Your task to perform on an android device: Add "bose quietcomfort 35" to the cart on costco.com, then select checkout. Image 0: 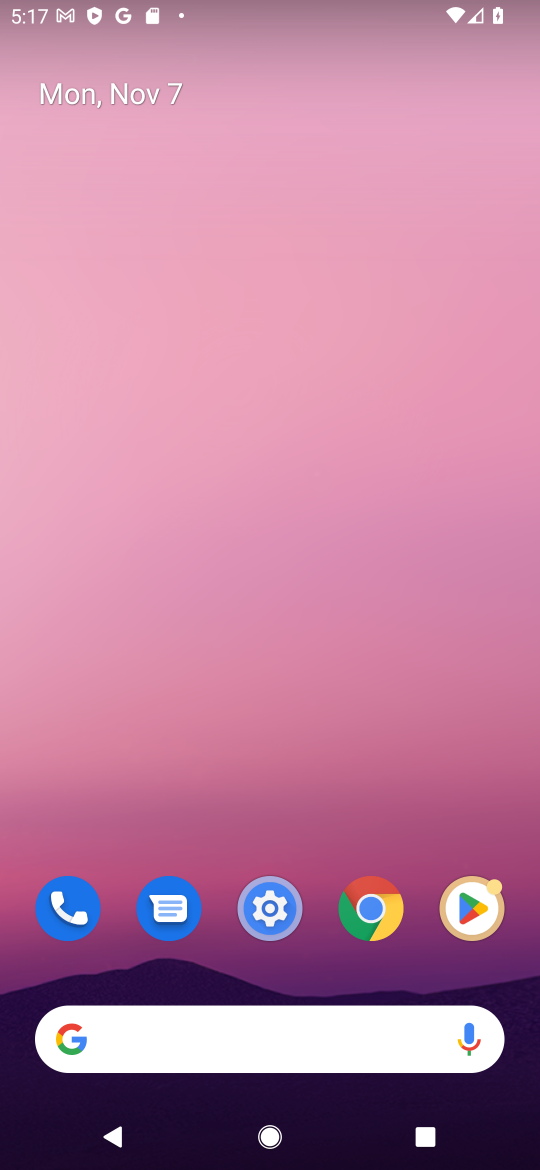
Step 0: click (252, 1063)
Your task to perform on an android device: Add "bose quietcomfort 35" to the cart on costco.com, then select checkout. Image 1: 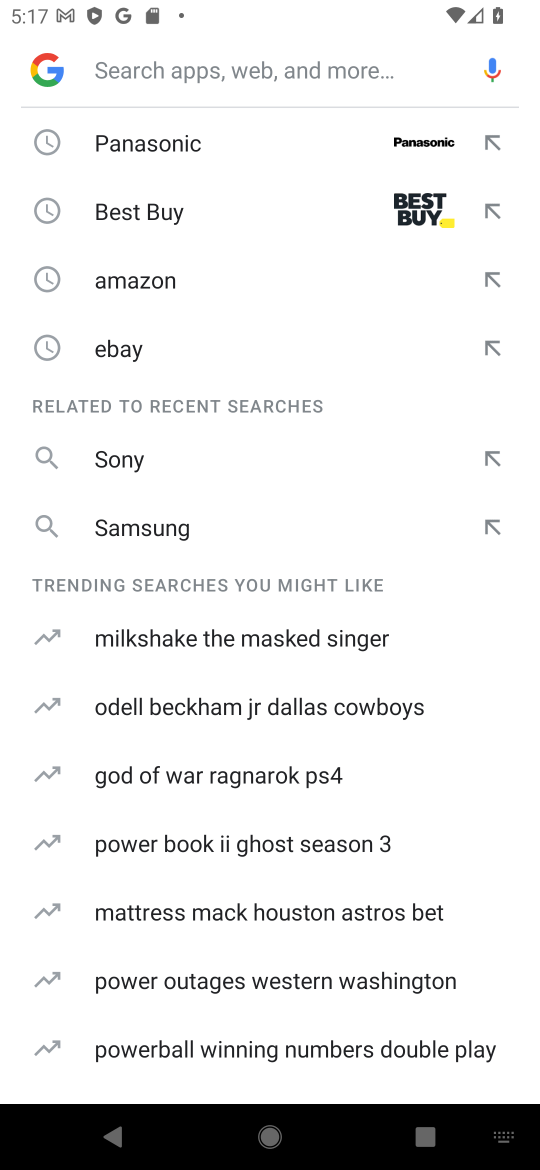
Step 1: type "costco"
Your task to perform on an android device: Add "bose quietcomfort 35" to the cart on costco.com, then select checkout. Image 2: 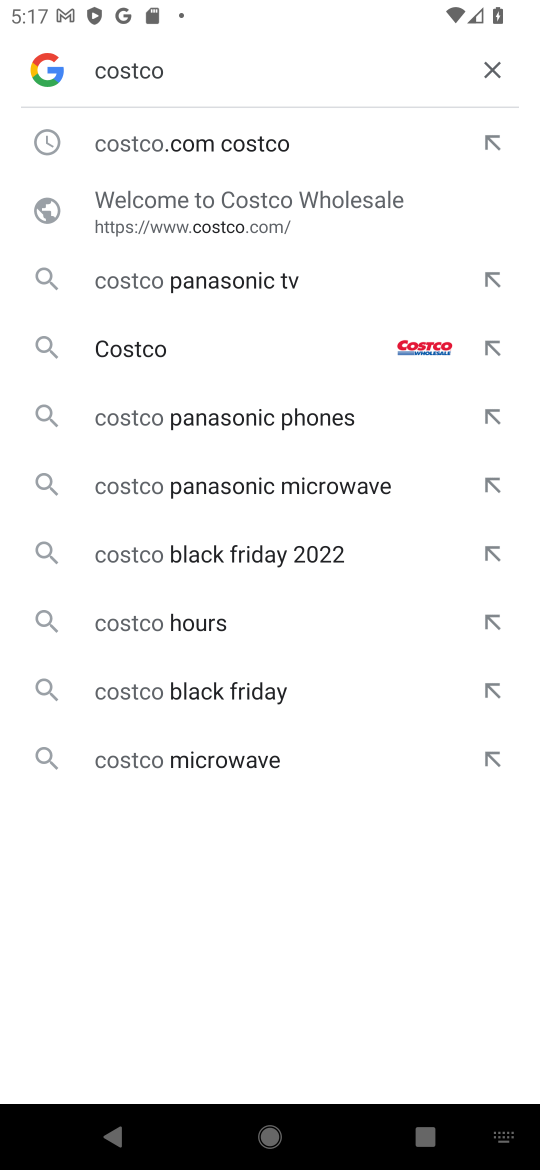
Step 2: click (179, 338)
Your task to perform on an android device: Add "bose quietcomfort 35" to the cart on costco.com, then select checkout. Image 3: 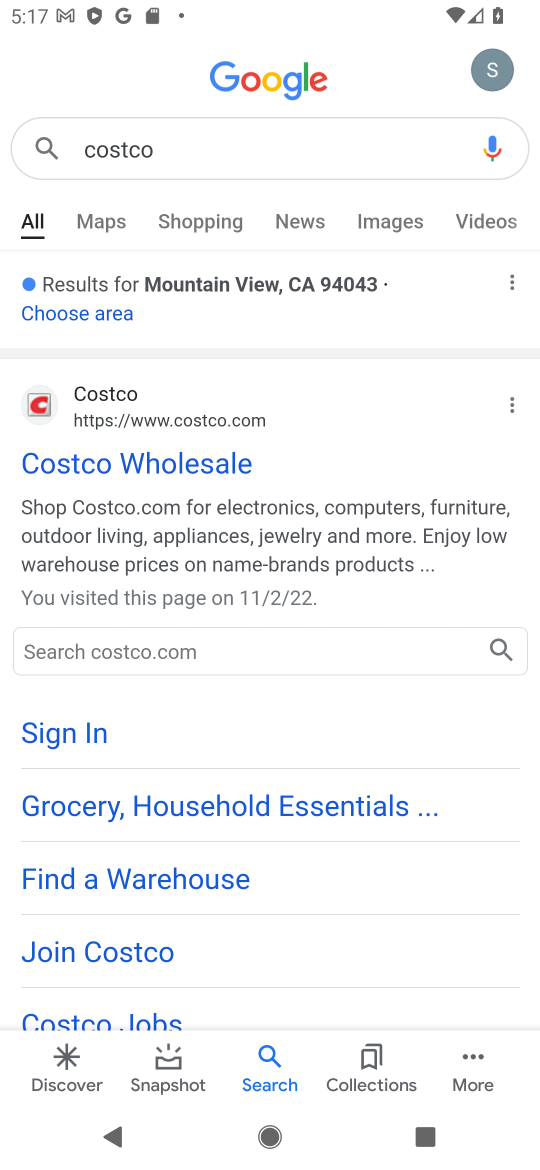
Step 3: click (111, 461)
Your task to perform on an android device: Add "bose quietcomfort 35" to the cart on costco.com, then select checkout. Image 4: 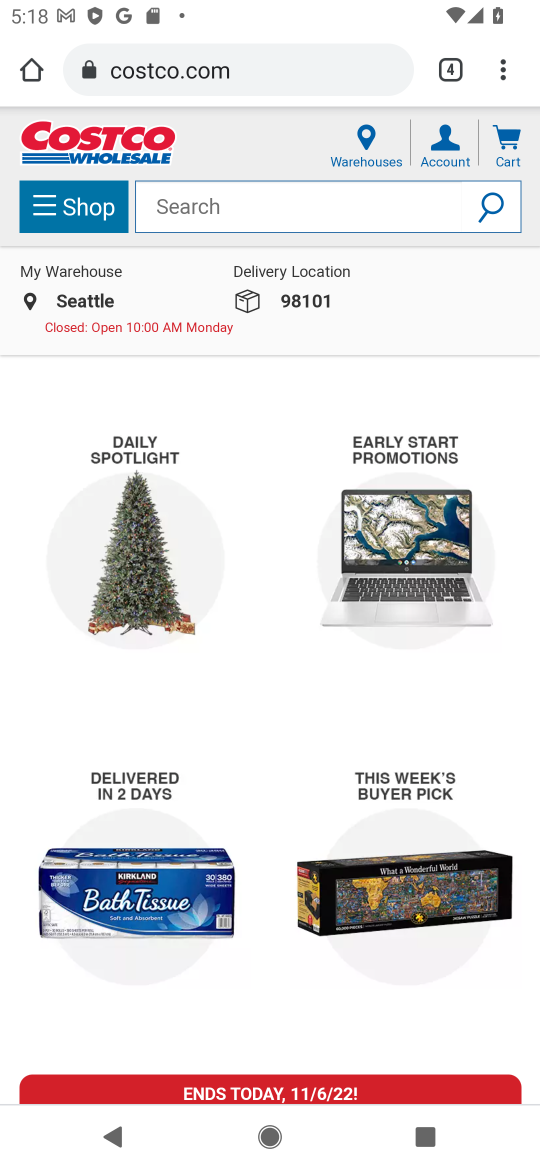
Step 4: task complete